Your task to perform on an android device: open chrome and create a bookmark for the current page Image 0: 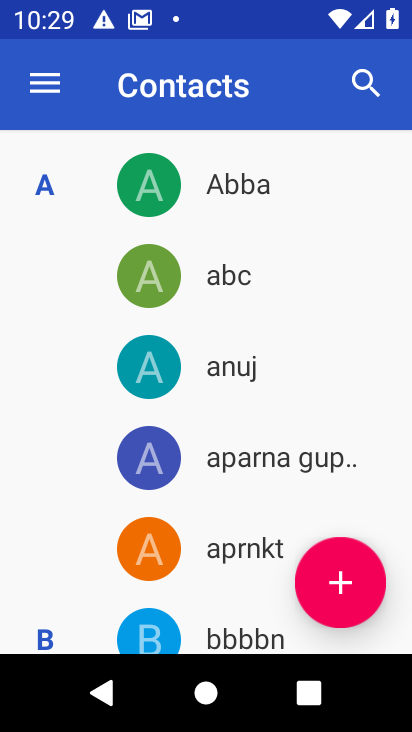
Step 0: press home button
Your task to perform on an android device: open chrome and create a bookmark for the current page Image 1: 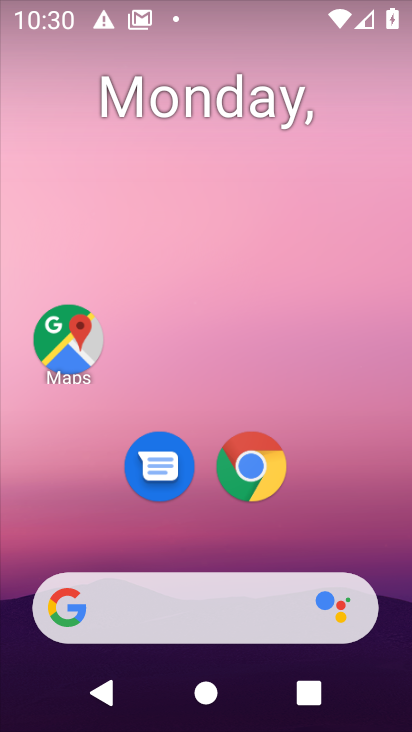
Step 1: drag from (349, 546) to (325, 7)
Your task to perform on an android device: open chrome and create a bookmark for the current page Image 2: 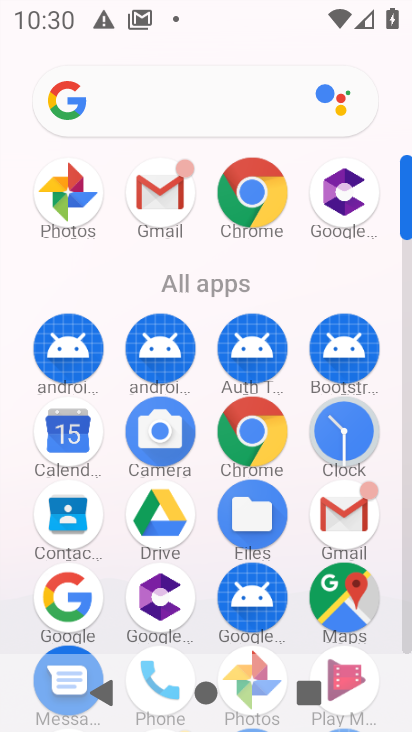
Step 2: click (254, 195)
Your task to perform on an android device: open chrome and create a bookmark for the current page Image 3: 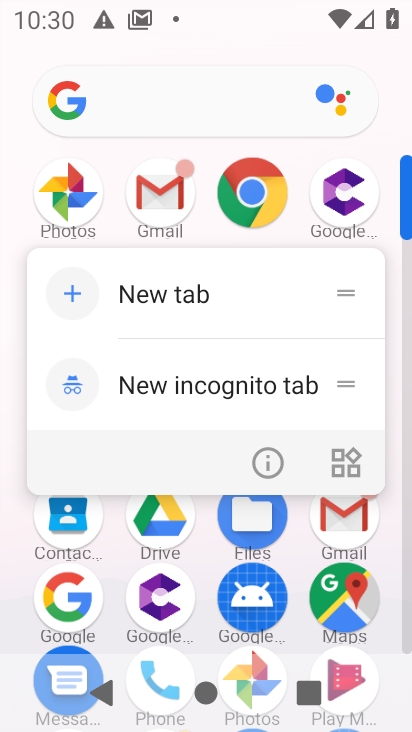
Step 3: click (266, 195)
Your task to perform on an android device: open chrome and create a bookmark for the current page Image 4: 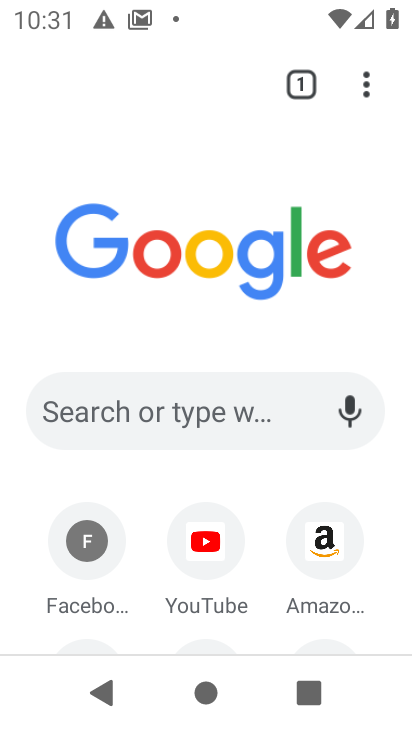
Step 4: task complete